Your task to perform on an android device: Open settings on Google Maps Image 0: 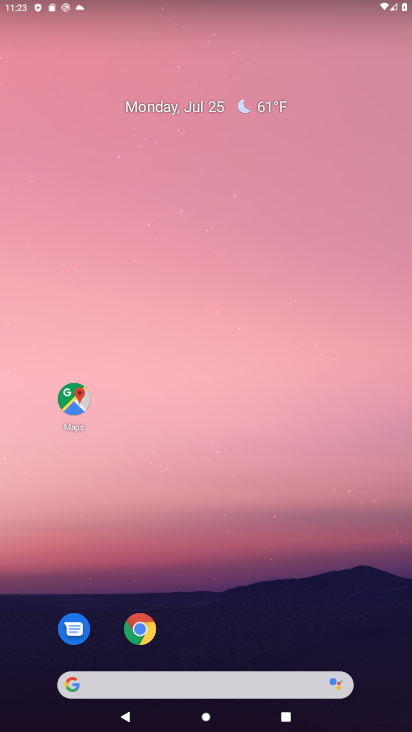
Step 0: drag from (193, 629) to (199, 179)
Your task to perform on an android device: Open settings on Google Maps Image 1: 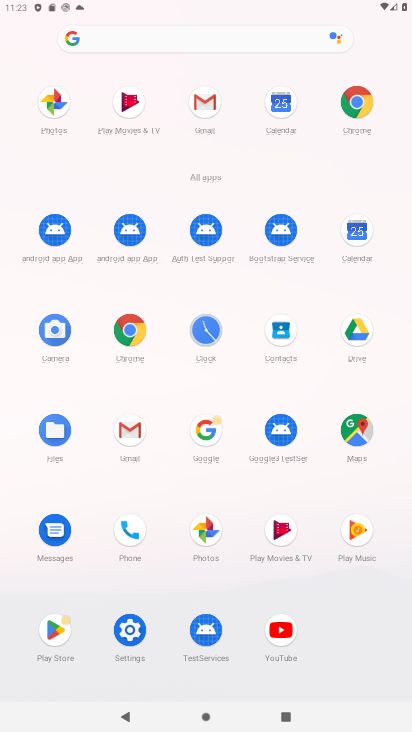
Step 1: click (359, 423)
Your task to perform on an android device: Open settings on Google Maps Image 2: 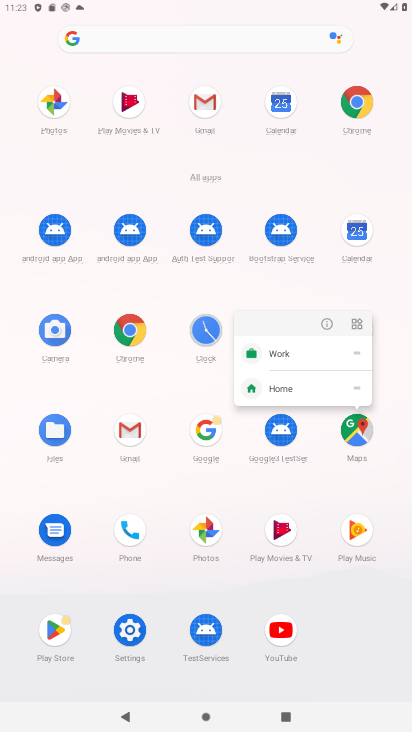
Step 2: click (335, 321)
Your task to perform on an android device: Open settings on Google Maps Image 3: 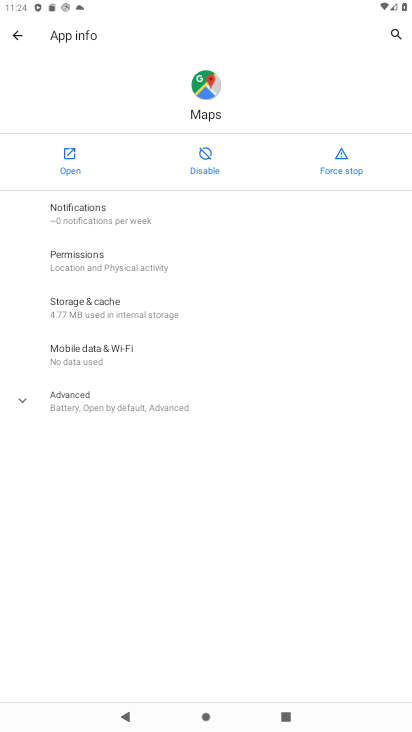
Step 3: click (67, 157)
Your task to perform on an android device: Open settings on Google Maps Image 4: 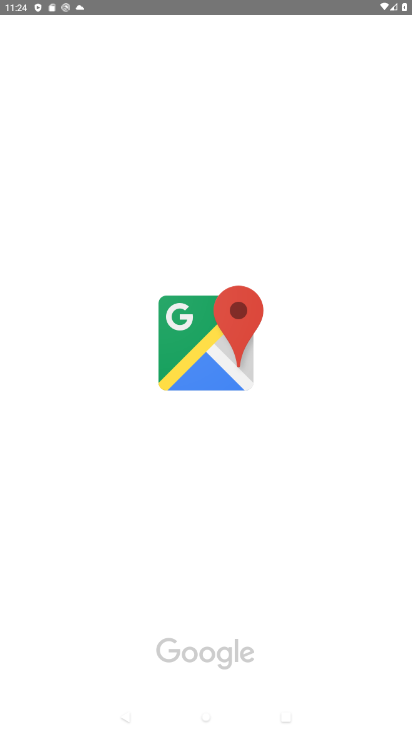
Step 4: drag from (248, 543) to (308, 203)
Your task to perform on an android device: Open settings on Google Maps Image 5: 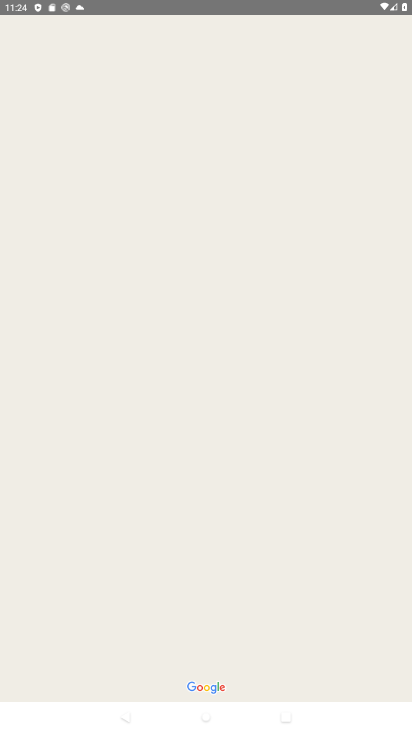
Step 5: drag from (264, 539) to (294, 400)
Your task to perform on an android device: Open settings on Google Maps Image 6: 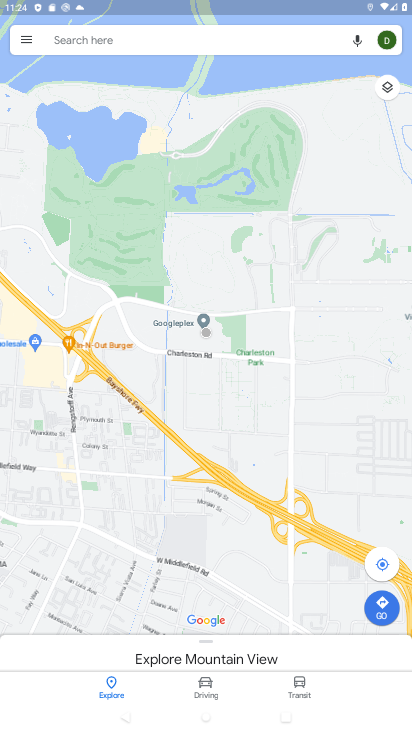
Step 6: click (19, 39)
Your task to perform on an android device: Open settings on Google Maps Image 7: 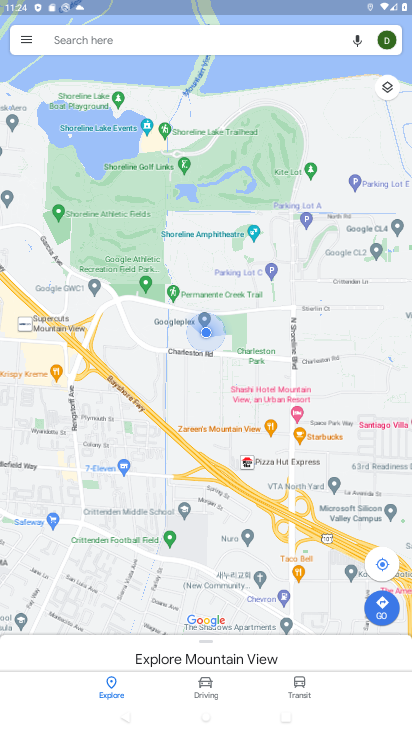
Step 7: click (25, 36)
Your task to perform on an android device: Open settings on Google Maps Image 8: 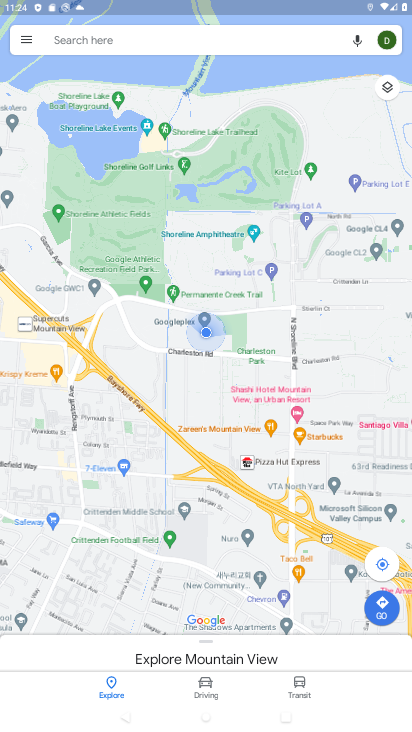
Step 8: click (32, 40)
Your task to perform on an android device: Open settings on Google Maps Image 9: 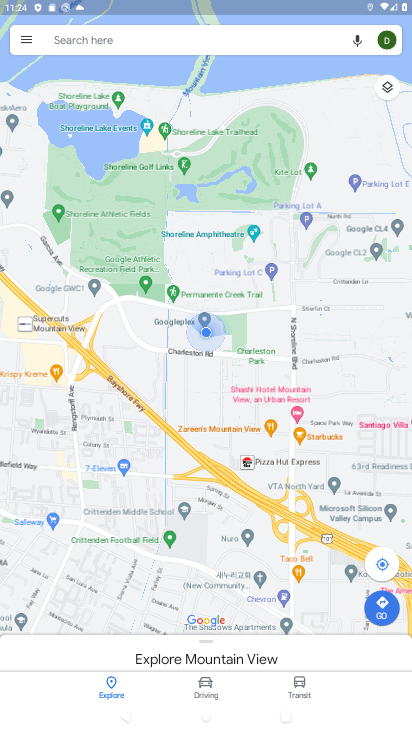
Step 9: click (32, 40)
Your task to perform on an android device: Open settings on Google Maps Image 10: 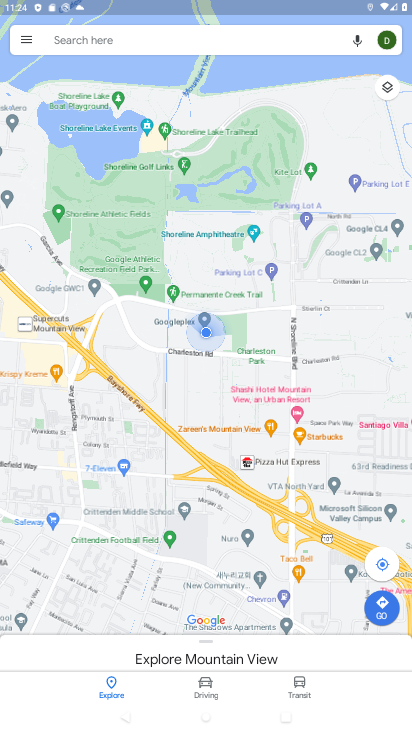
Step 10: click (32, 42)
Your task to perform on an android device: Open settings on Google Maps Image 11: 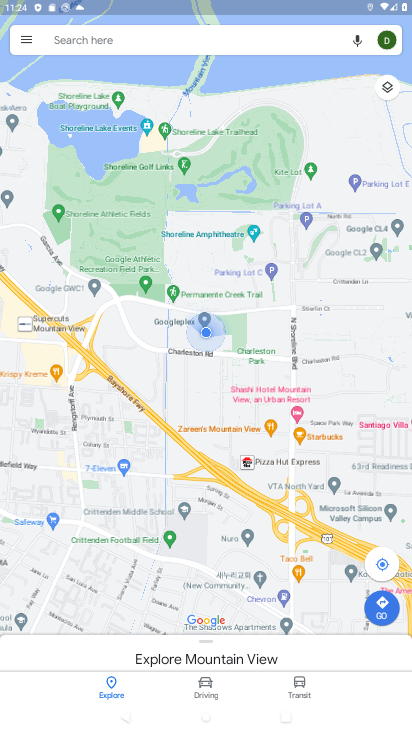
Step 11: click (17, 46)
Your task to perform on an android device: Open settings on Google Maps Image 12: 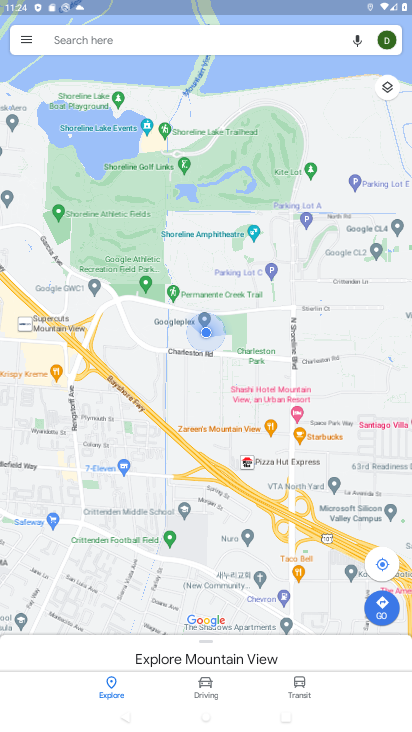
Step 12: click (22, 37)
Your task to perform on an android device: Open settings on Google Maps Image 13: 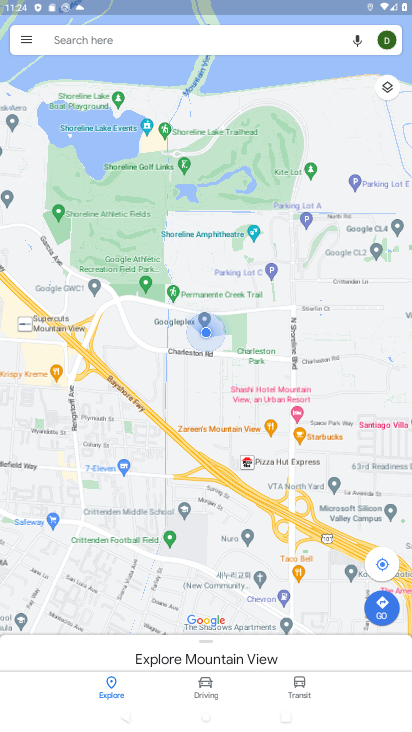
Step 13: drag from (231, 512) to (314, 112)
Your task to perform on an android device: Open settings on Google Maps Image 14: 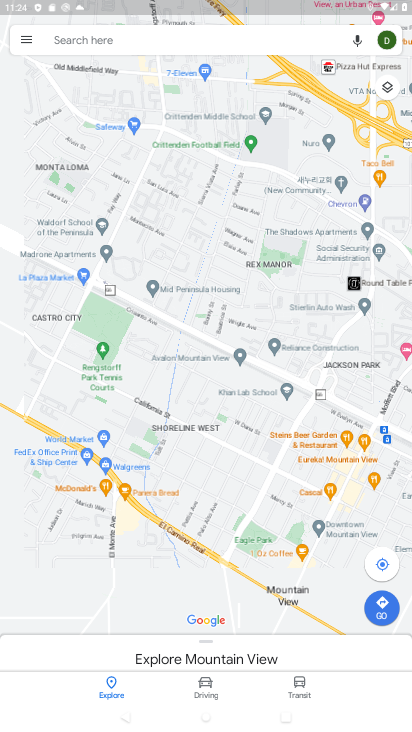
Step 14: click (28, 44)
Your task to perform on an android device: Open settings on Google Maps Image 15: 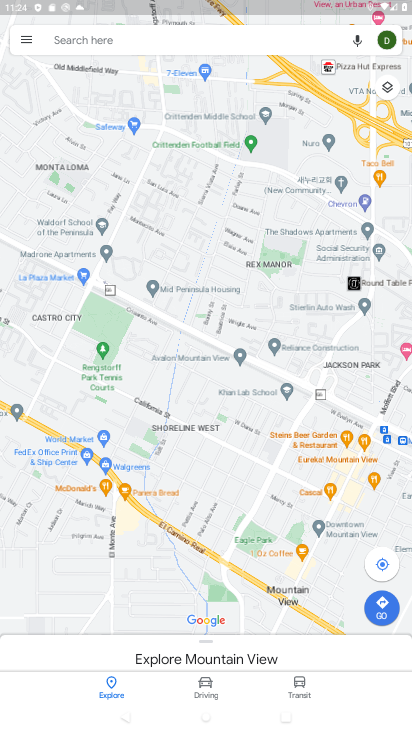
Step 15: click (21, 41)
Your task to perform on an android device: Open settings on Google Maps Image 16: 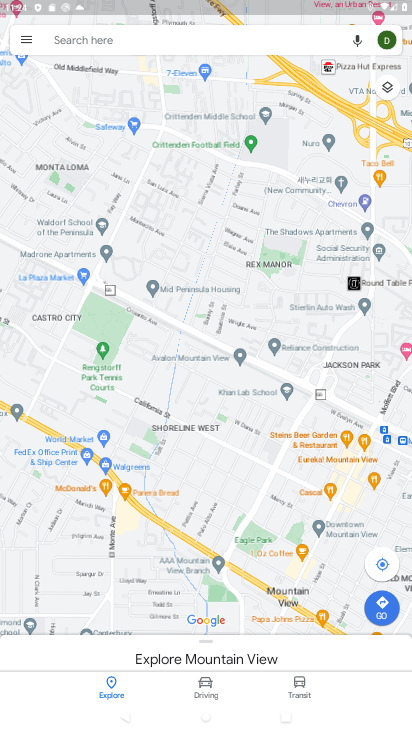
Step 16: click (15, 35)
Your task to perform on an android device: Open settings on Google Maps Image 17: 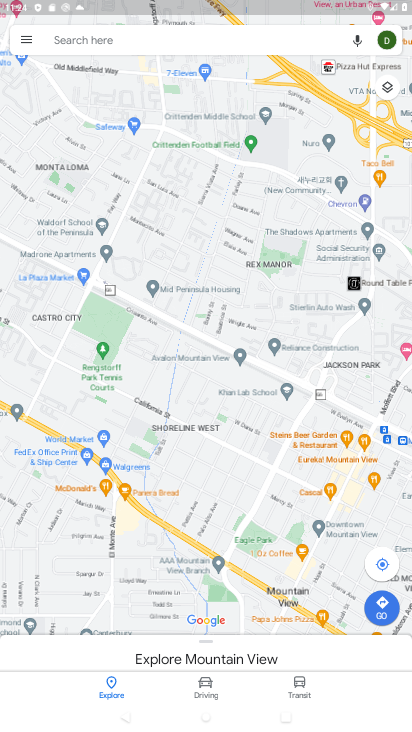
Step 17: click (15, 35)
Your task to perform on an android device: Open settings on Google Maps Image 18: 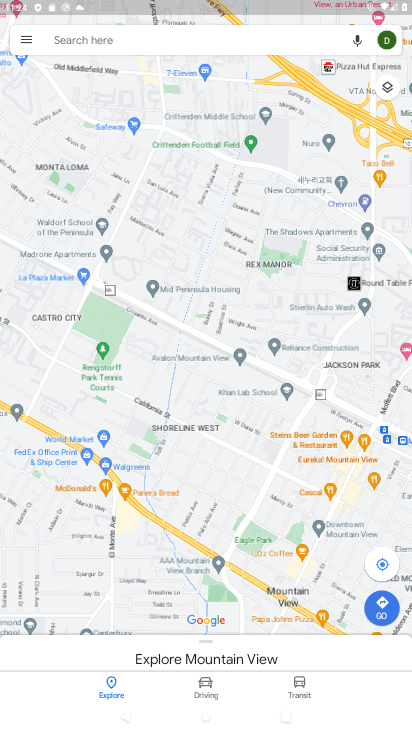
Step 18: drag from (261, 386) to (1, 358)
Your task to perform on an android device: Open settings on Google Maps Image 19: 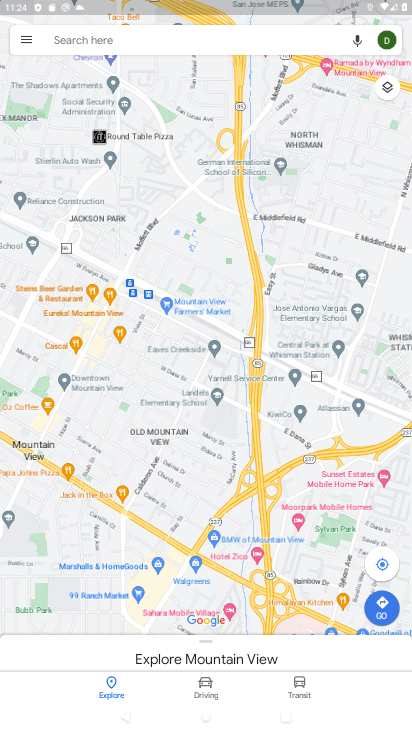
Step 19: click (337, 378)
Your task to perform on an android device: Open settings on Google Maps Image 20: 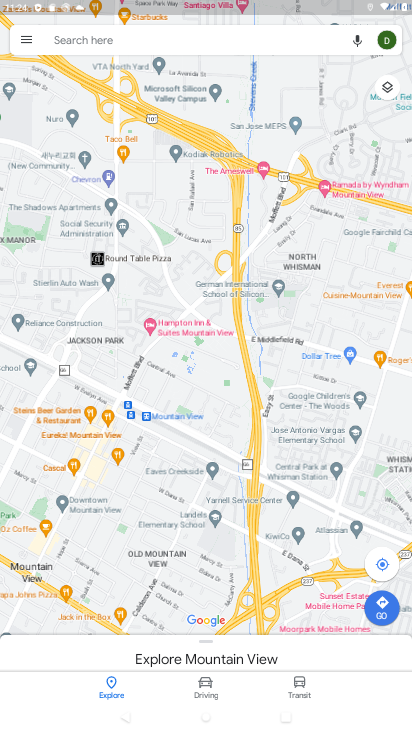
Step 20: click (23, 38)
Your task to perform on an android device: Open settings on Google Maps Image 21: 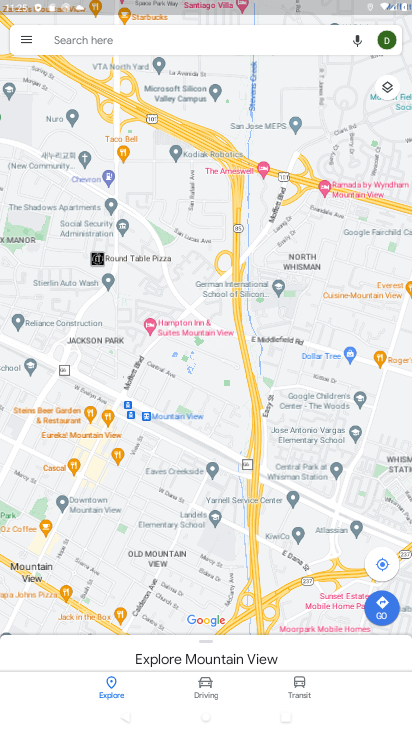
Step 21: task complete